Your task to perform on an android device: check data usage Image 0: 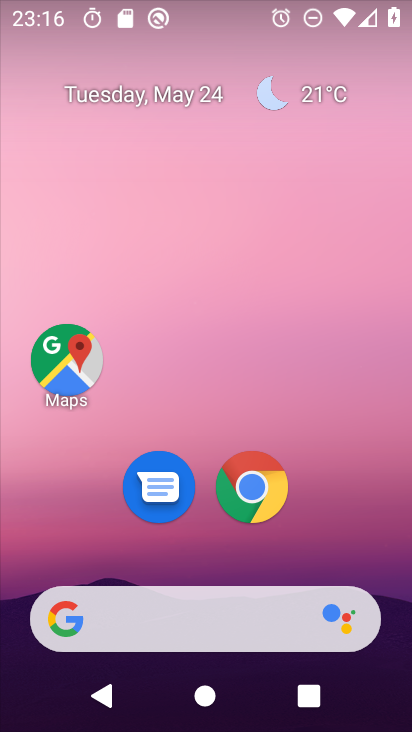
Step 0: drag from (359, 531) to (318, 32)
Your task to perform on an android device: check data usage Image 1: 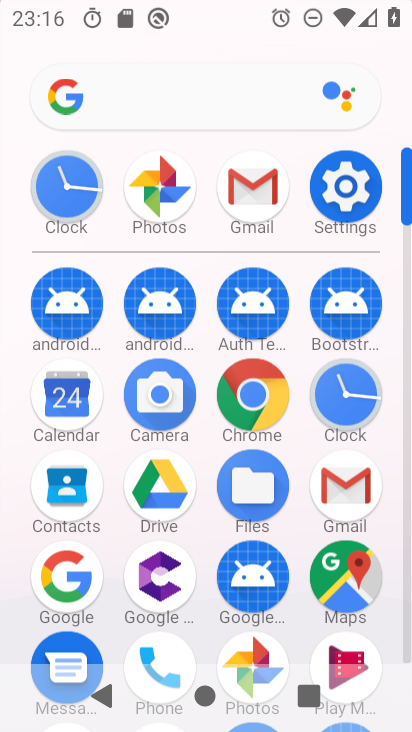
Step 1: click (340, 195)
Your task to perform on an android device: check data usage Image 2: 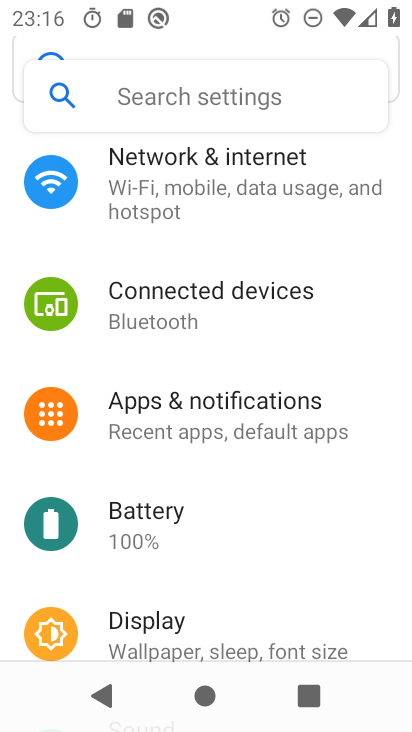
Step 2: click (208, 195)
Your task to perform on an android device: check data usage Image 3: 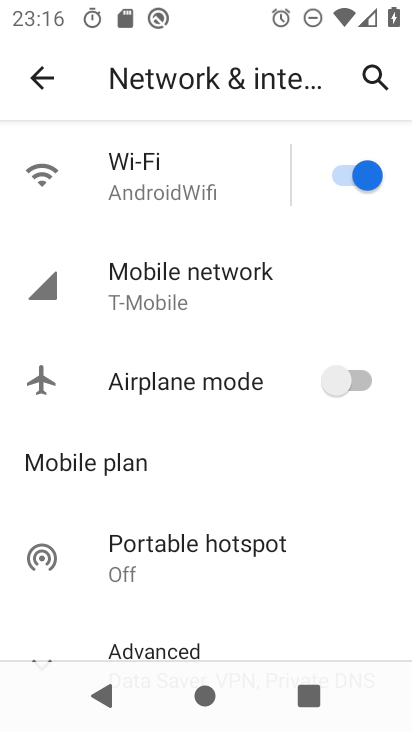
Step 3: click (154, 280)
Your task to perform on an android device: check data usage Image 4: 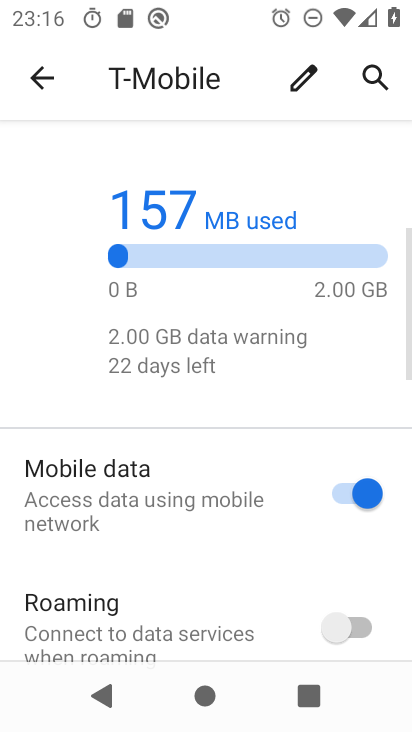
Step 4: drag from (146, 570) to (156, 143)
Your task to perform on an android device: check data usage Image 5: 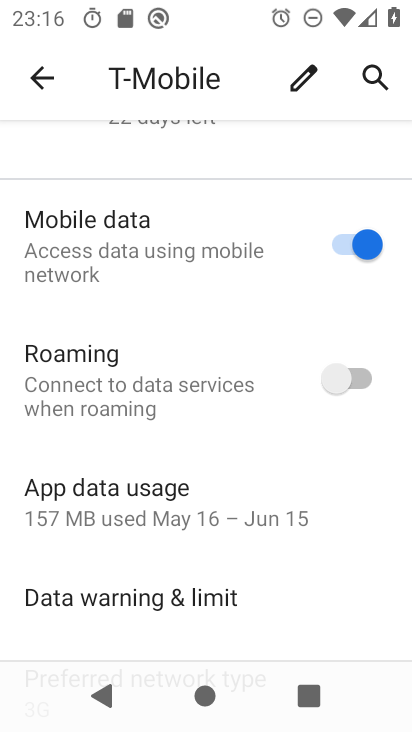
Step 5: click (122, 495)
Your task to perform on an android device: check data usage Image 6: 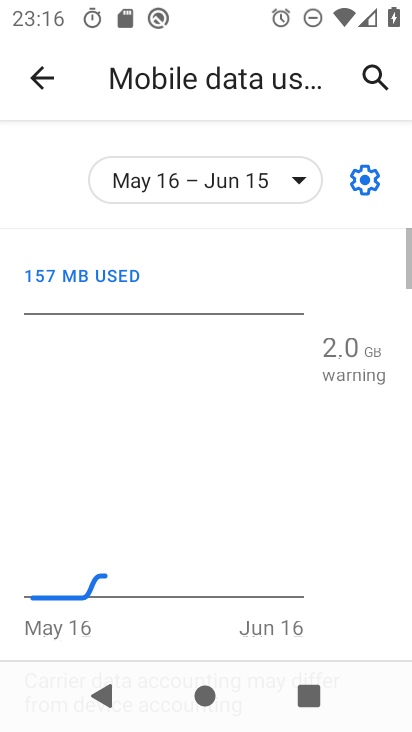
Step 6: task complete